Your task to perform on an android device: Clear the shopping cart on amazon. Add macbook pro 13 inch to the cart on amazon, then select checkout. Image 0: 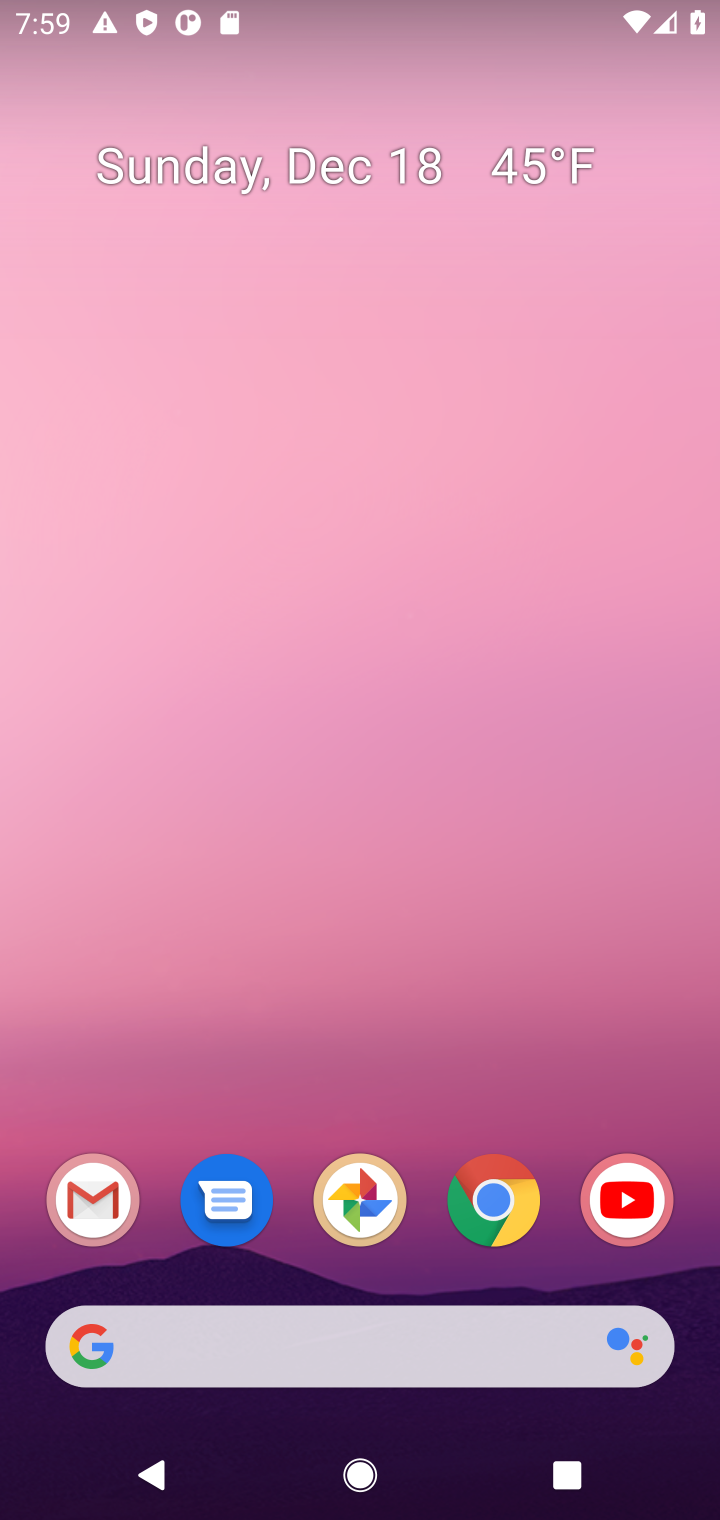
Step 0: click (506, 1222)
Your task to perform on an android device: Clear the shopping cart on amazon. Add macbook pro 13 inch to the cart on amazon, then select checkout. Image 1: 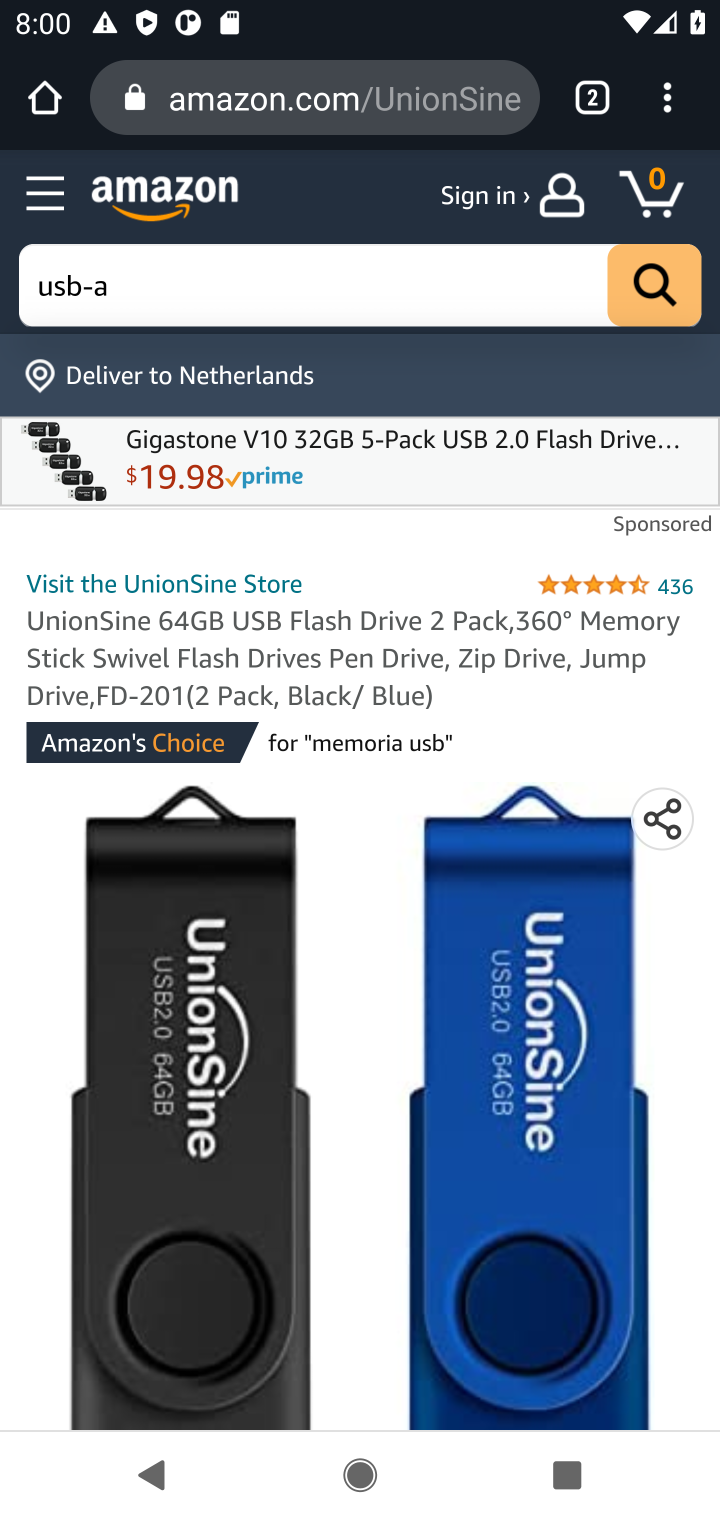
Step 1: click (653, 193)
Your task to perform on an android device: Clear the shopping cart on amazon. Add macbook pro 13 inch to the cart on amazon, then select checkout. Image 2: 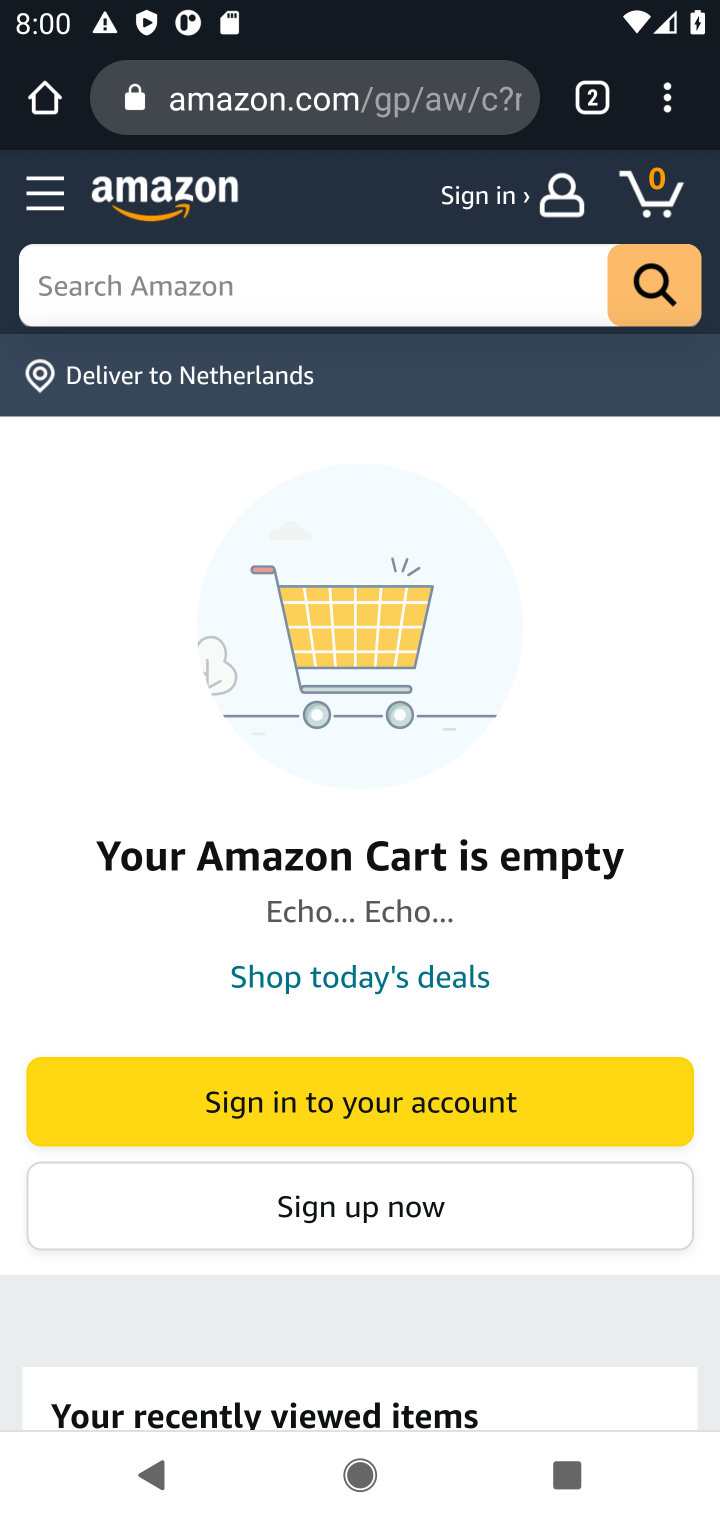
Step 2: click (280, 273)
Your task to perform on an android device: Clear the shopping cart on amazon. Add macbook pro 13 inch to the cart on amazon, then select checkout. Image 3: 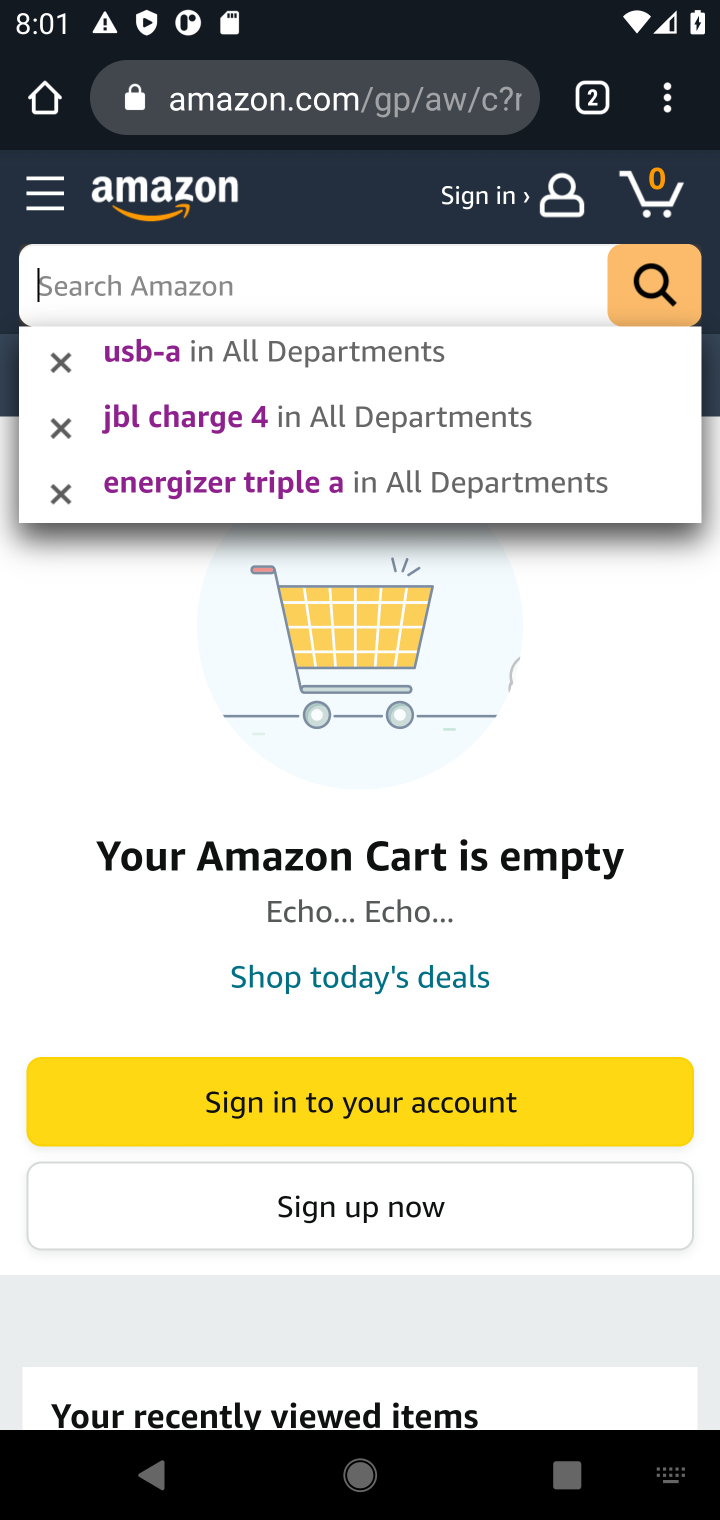
Step 3: type "macbook pro 13 inch"
Your task to perform on an android device: Clear the shopping cart on amazon. Add macbook pro 13 inch to the cart on amazon, then select checkout. Image 4: 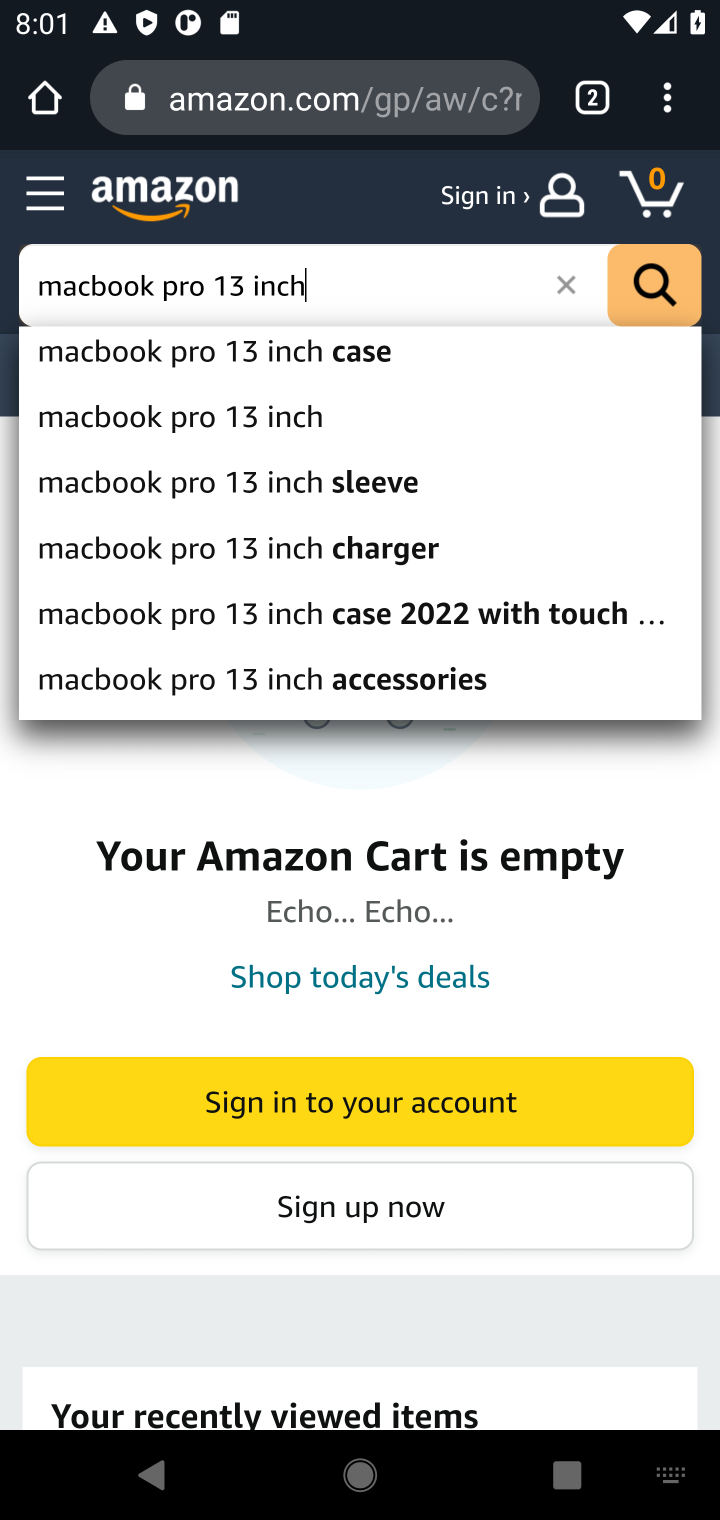
Step 4: click (155, 414)
Your task to perform on an android device: Clear the shopping cart on amazon. Add macbook pro 13 inch to the cart on amazon, then select checkout. Image 5: 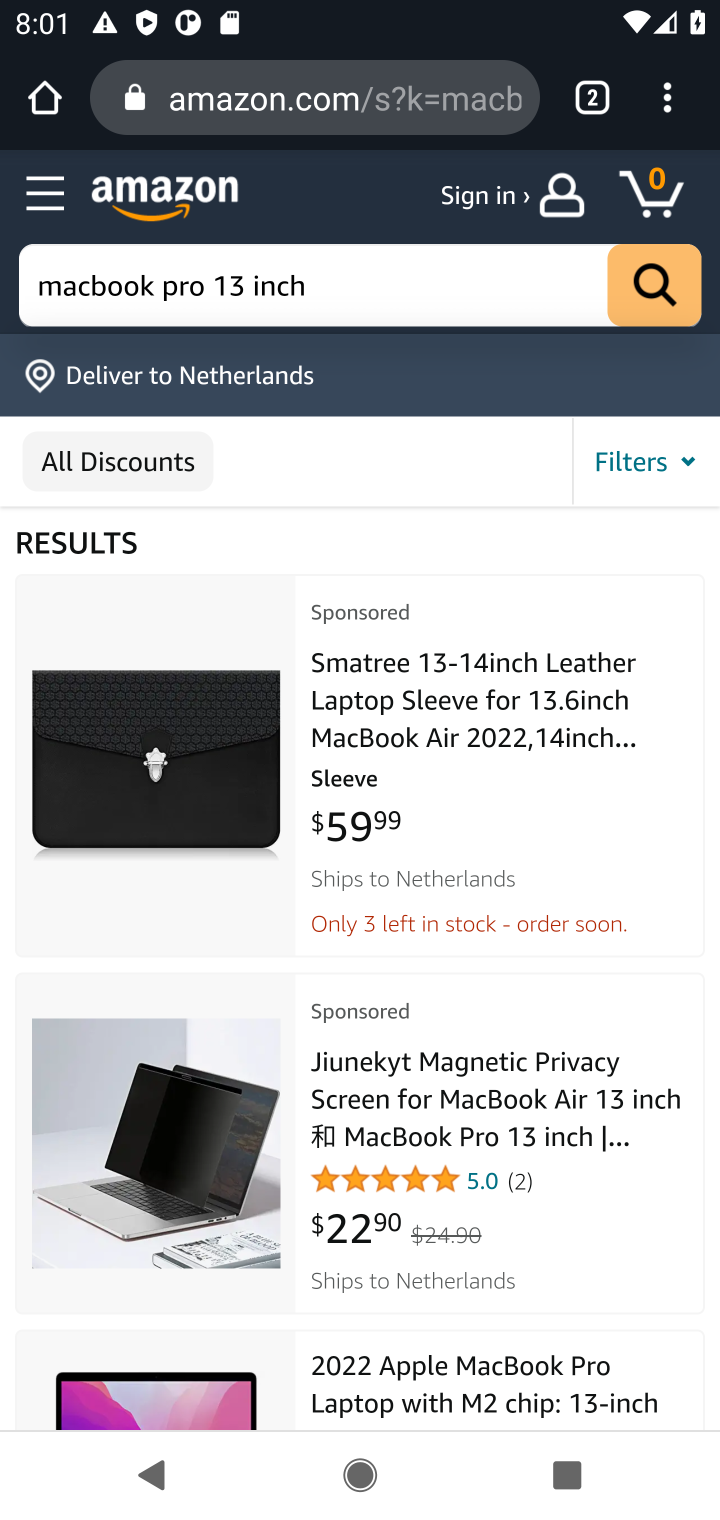
Step 5: drag from (264, 1126) to (264, 762)
Your task to perform on an android device: Clear the shopping cart on amazon. Add macbook pro 13 inch to the cart on amazon, then select checkout. Image 6: 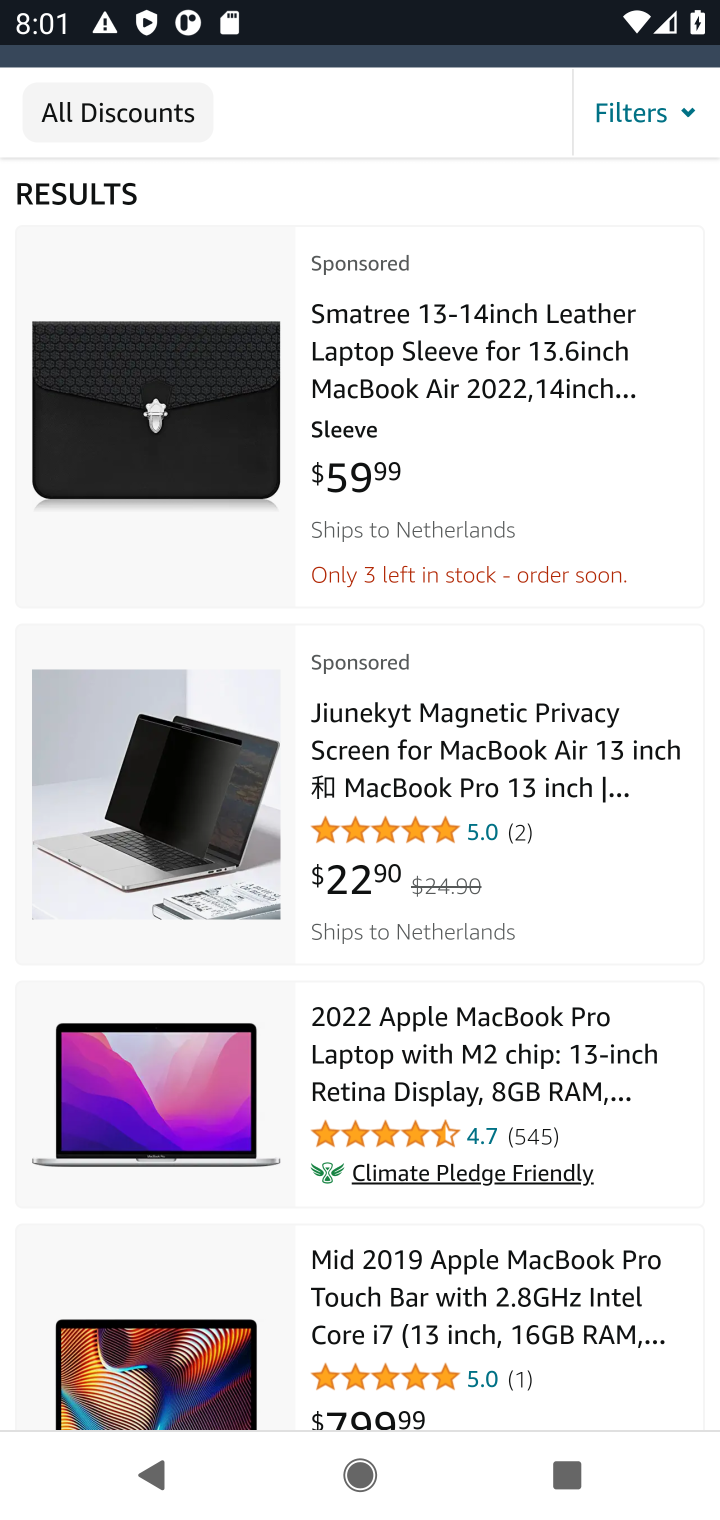
Step 6: click (366, 740)
Your task to perform on an android device: Clear the shopping cart on amazon. Add macbook pro 13 inch to the cart on amazon, then select checkout. Image 7: 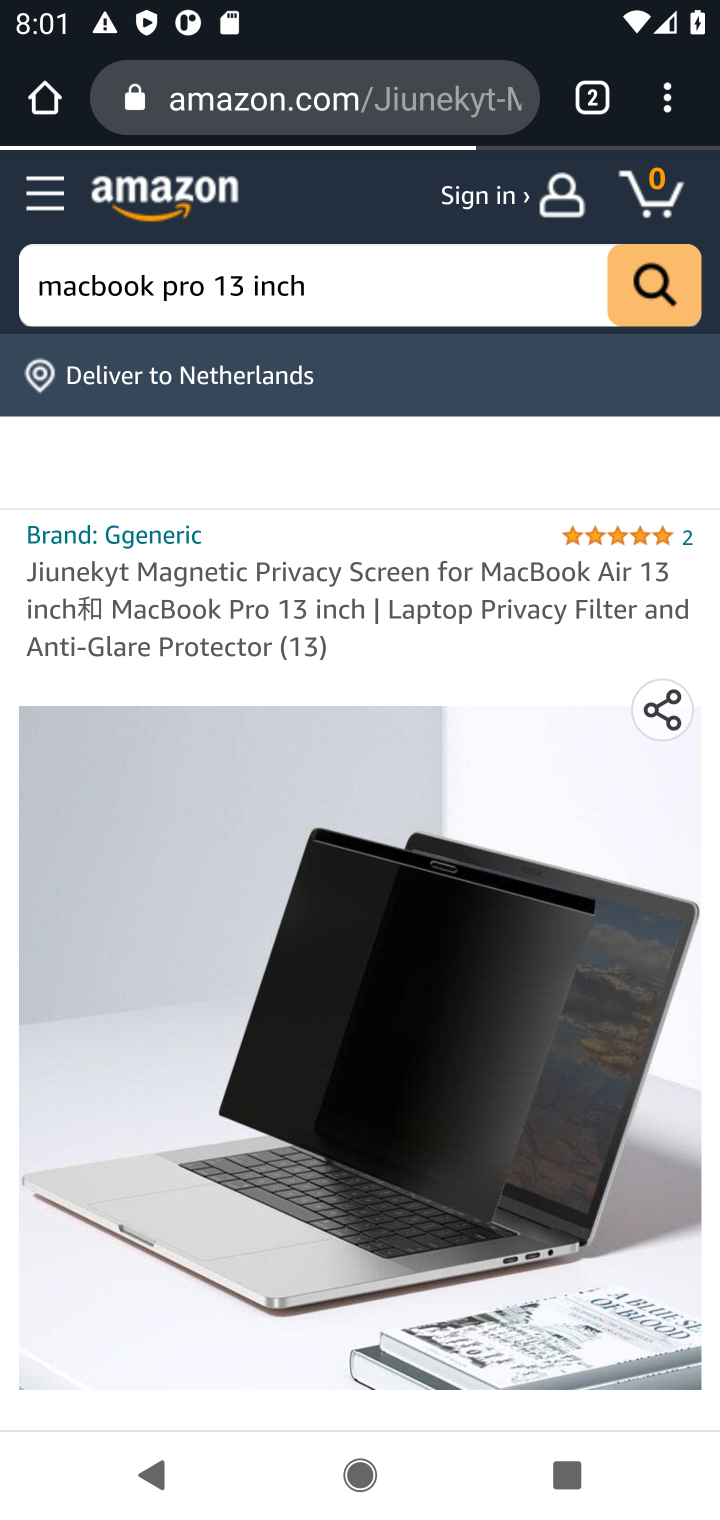
Step 7: drag from (328, 1025) to (299, 393)
Your task to perform on an android device: Clear the shopping cart on amazon. Add macbook pro 13 inch to the cart on amazon, then select checkout. Image 8: 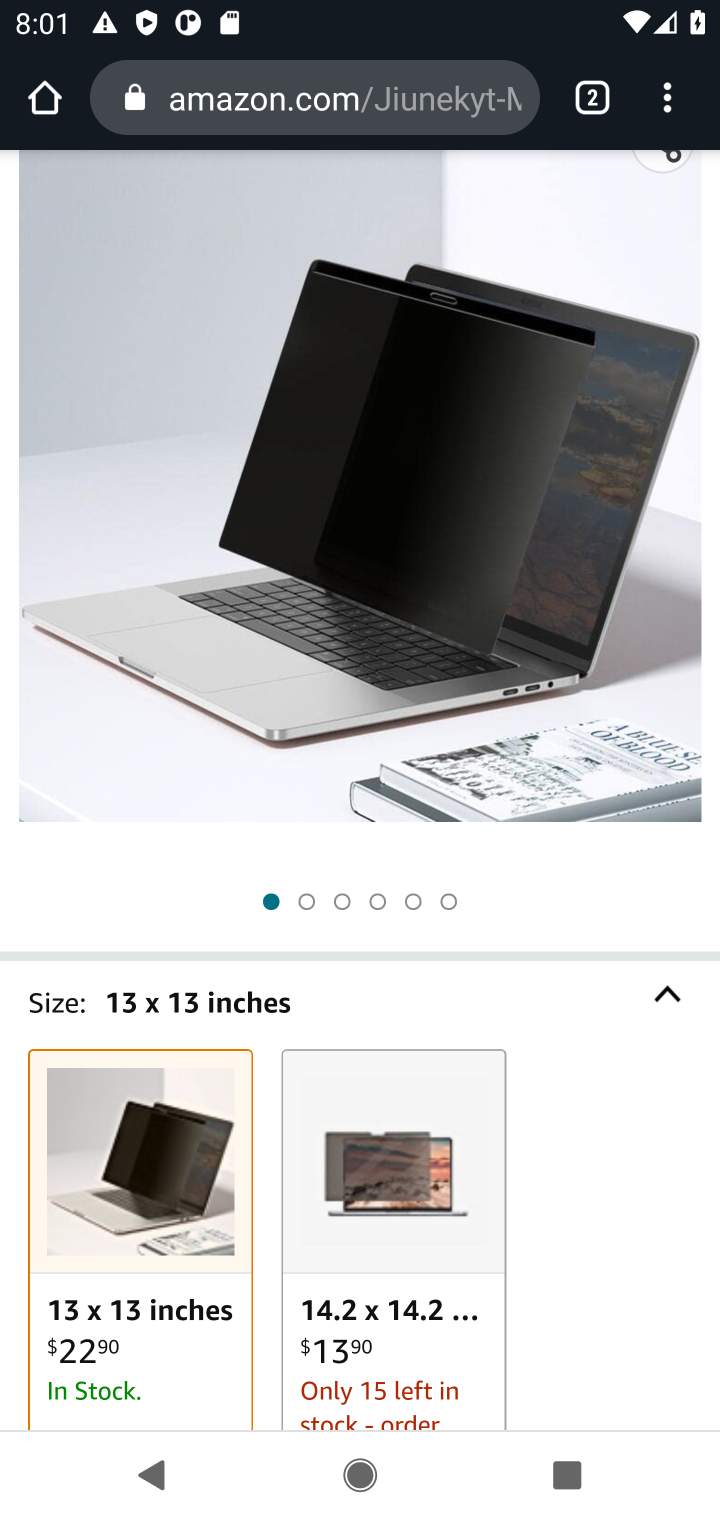
Step 8: drag from (588, 1090) to (537, 364)
Your task to perform on an android device: Clear the shopping cart on amazon. Add macbook pro 13 inch to the cart on amazon, then select checkout. Image 9: 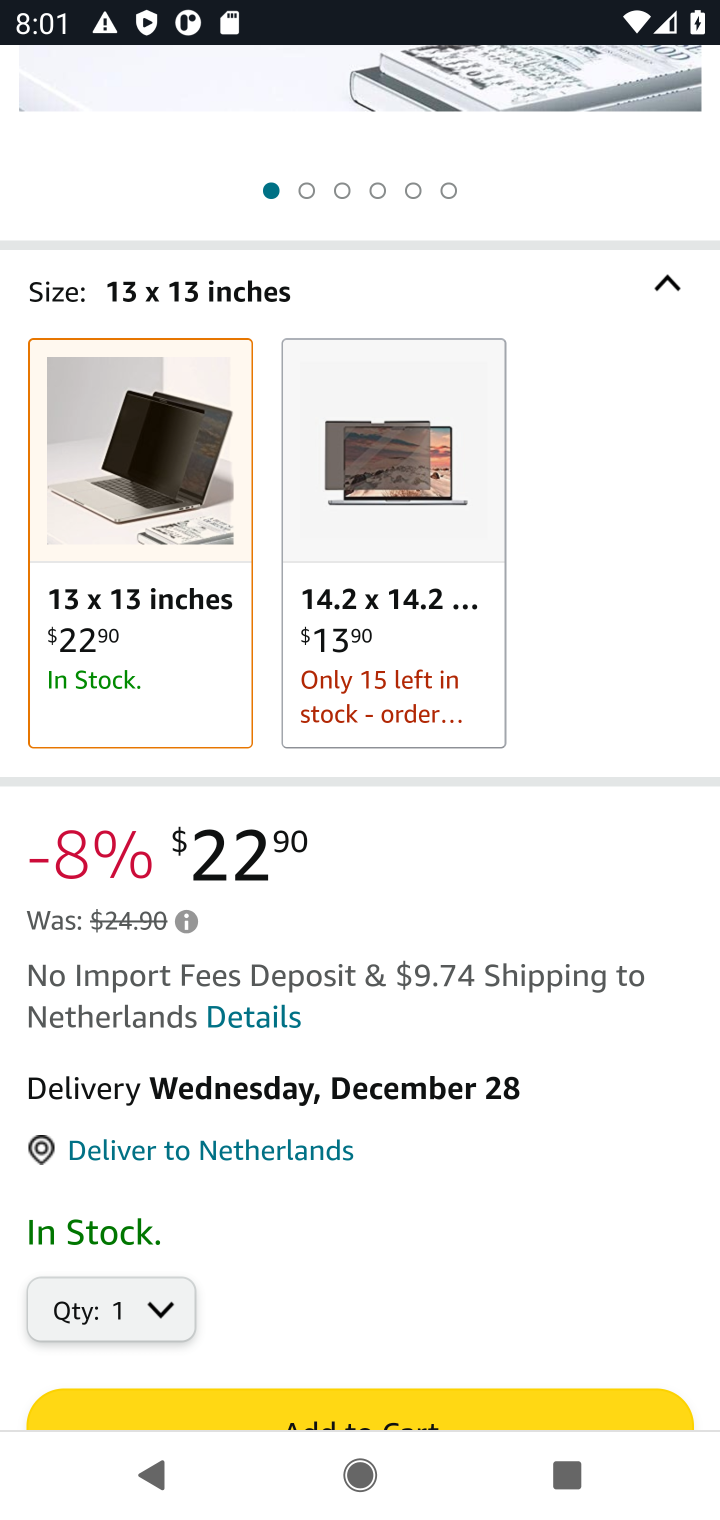
Step 9: drag from (386, 1231) to (366, 590)
Your task to perform on an android device: Clear the shopping cart on amazon. Add macbook pro 13 inch to the cart on amazon, then select checkout. Image 10: 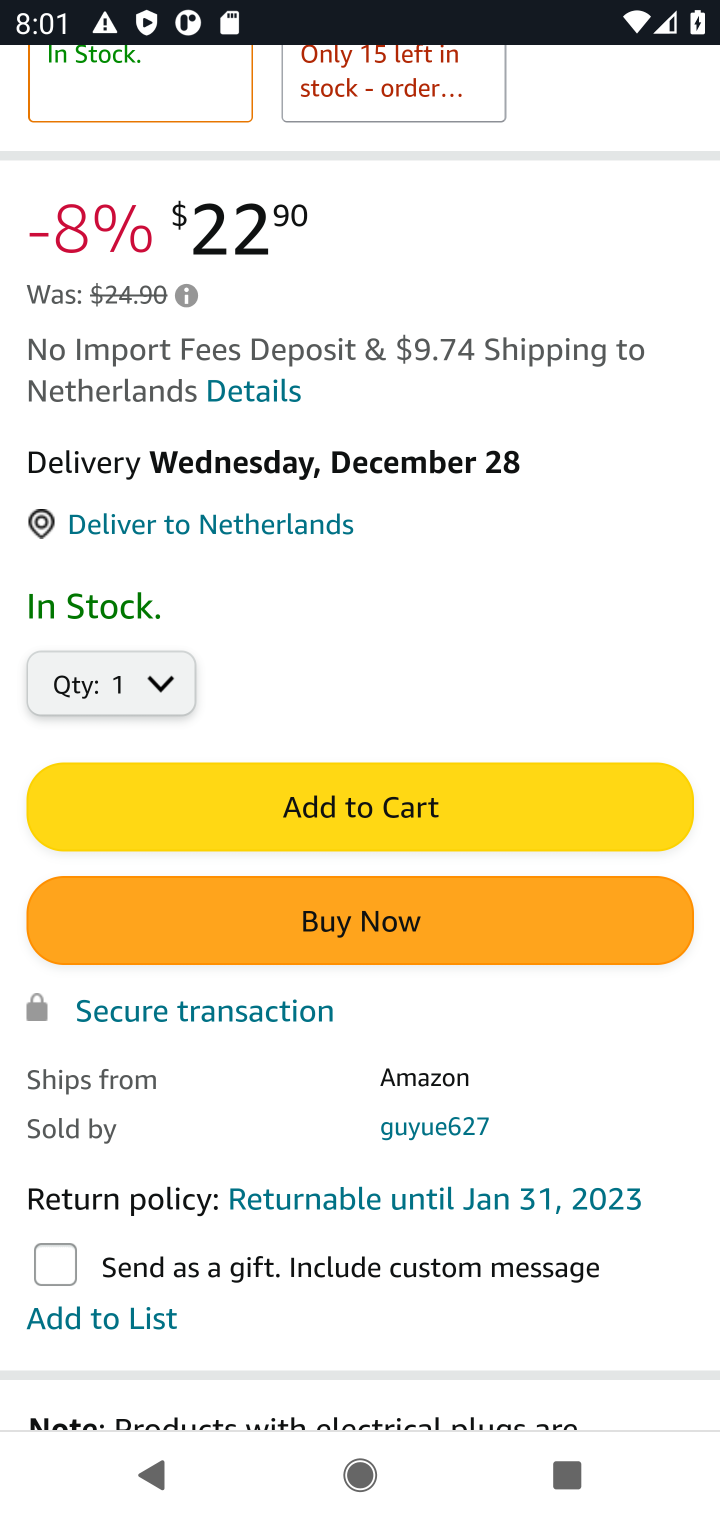
Step 10: click (326, 814)
Your task to perform on an android device: Clear the shopping cart on amazon. Add macbook pro 13 inch to the cart on amazon, then select checkout. Image 11: 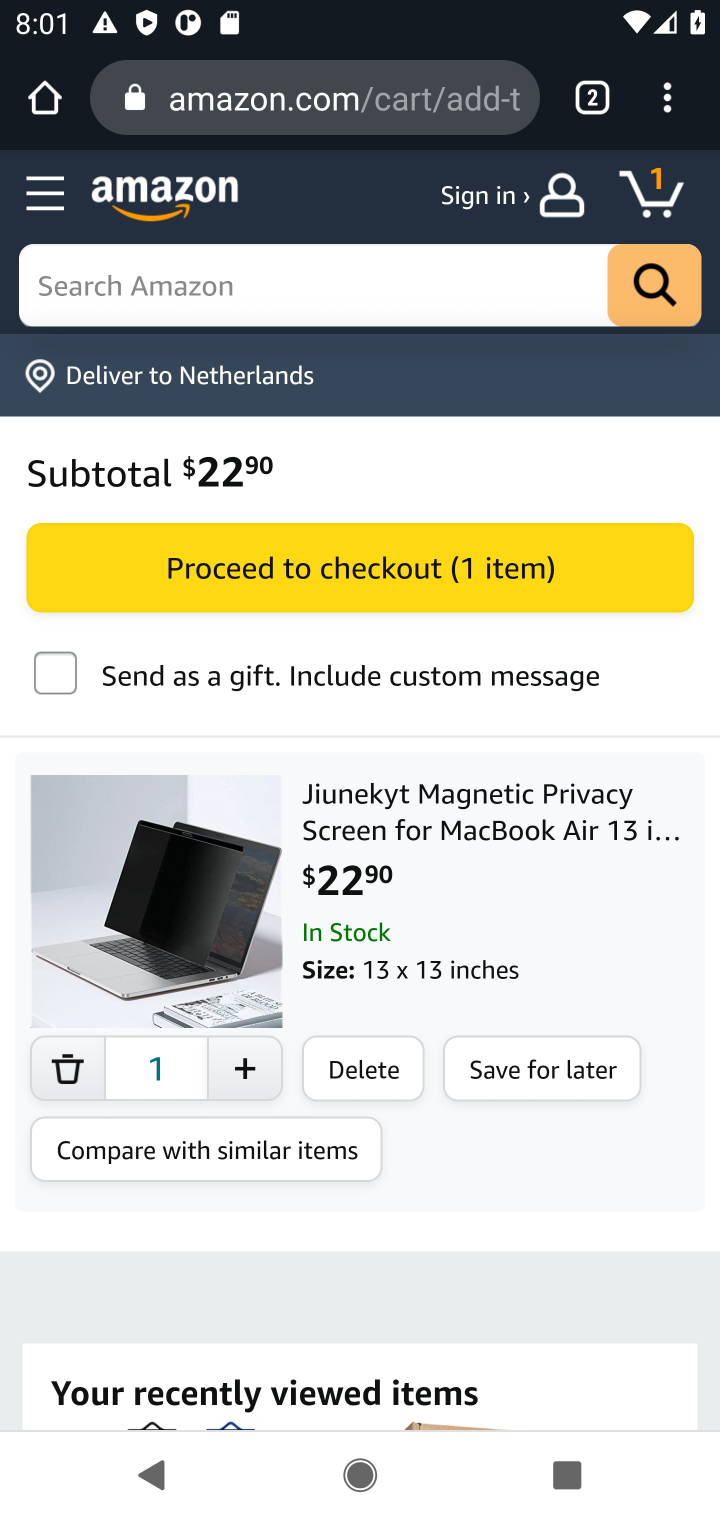
Step 11: click (295, 568)
Your task to perform on an android device: Clear the shopping cart on amazon. Add macbook pro 13 inch to the cart on amazon, then select checkout. Image 12: 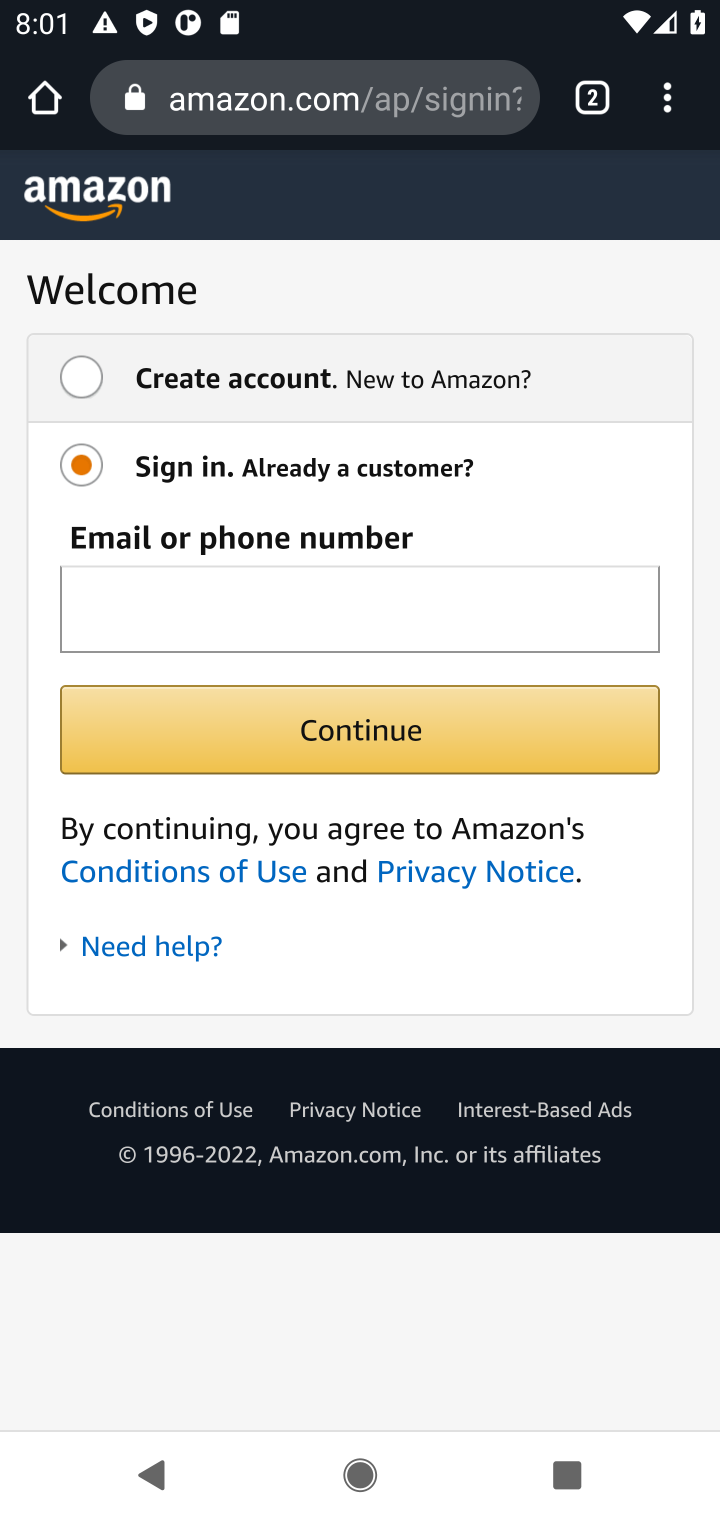
Step 12: task complete